Your task to perform on an android device: Open accessibility settings Image 0: 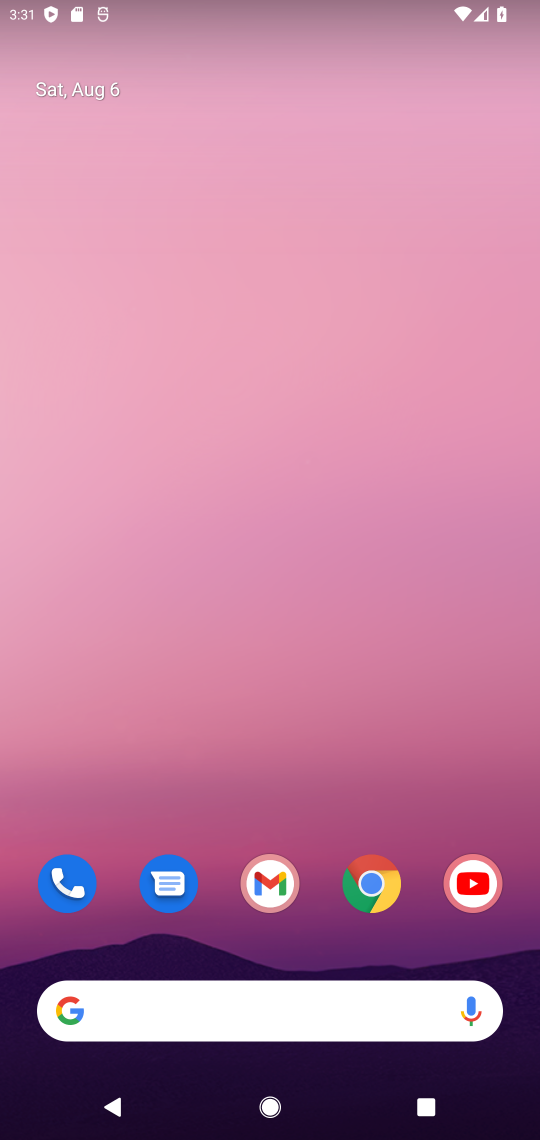
Step 0: drag from (388, 732) to (400, 170)
Your task to perform on an android device: Open accessibility settings Image 1: 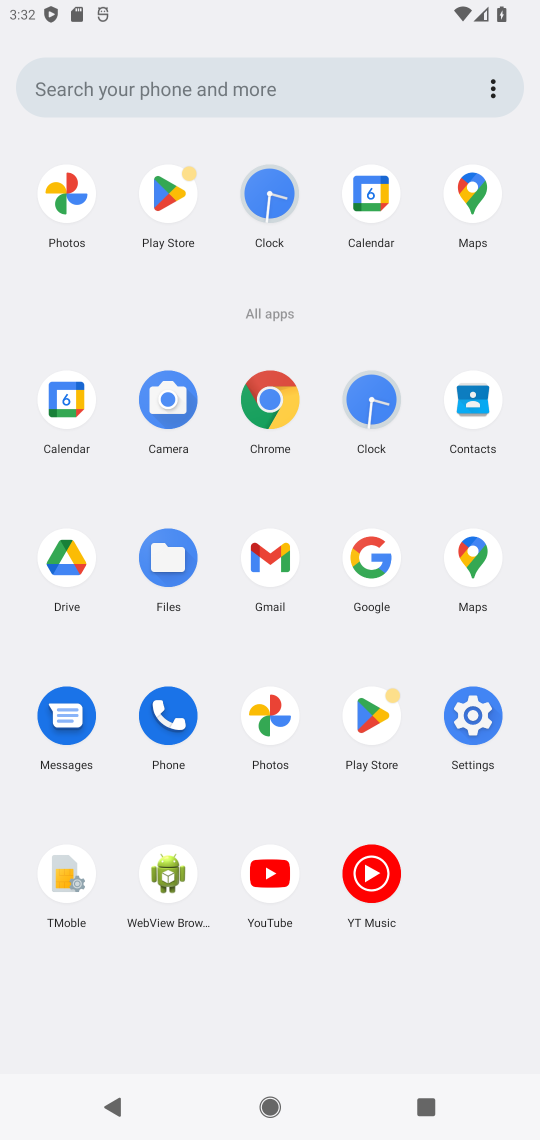
Step 1: click (482, 727)
Your task to perform on an android device: Open accessibility settings Image 2: 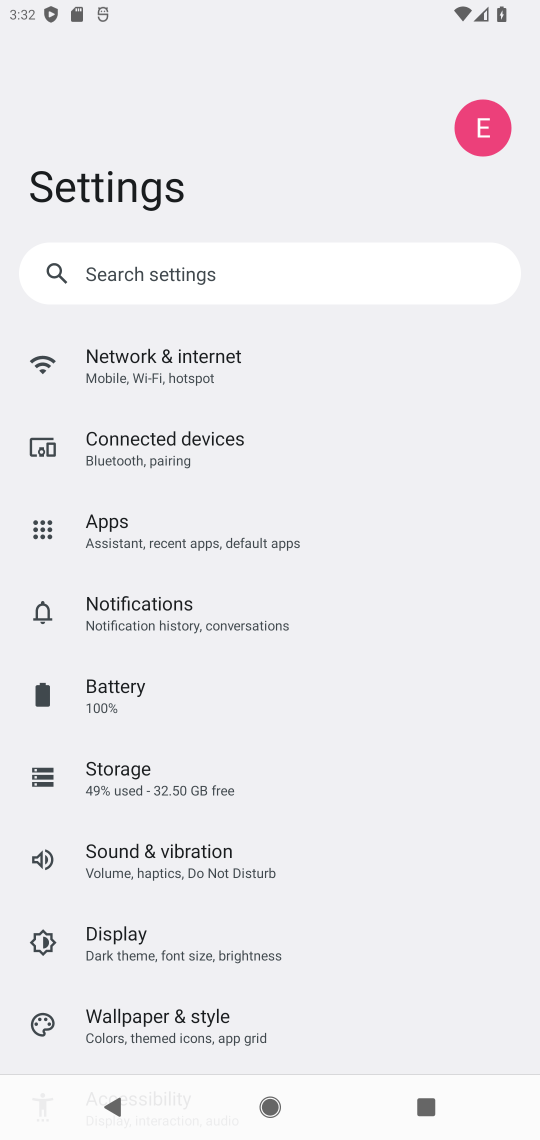
Step 2: drag from (202, 768) to (316, 120)
Your task to perform on an android device: Open accessibility settings Image 3: 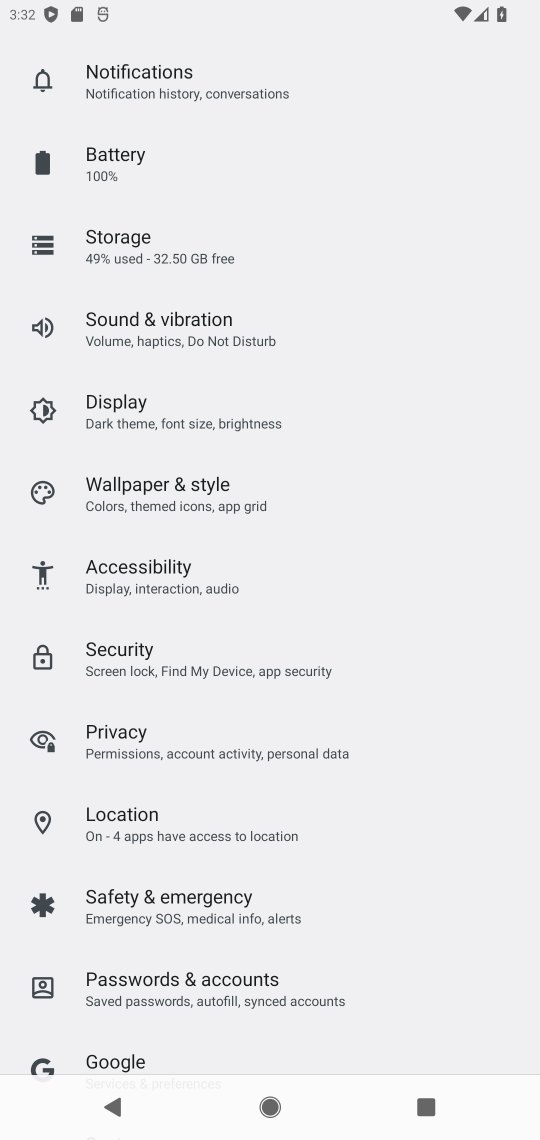
Step 3: click (211, 591)
Your task to perform on an android device: Open accessibility settings Image 4: 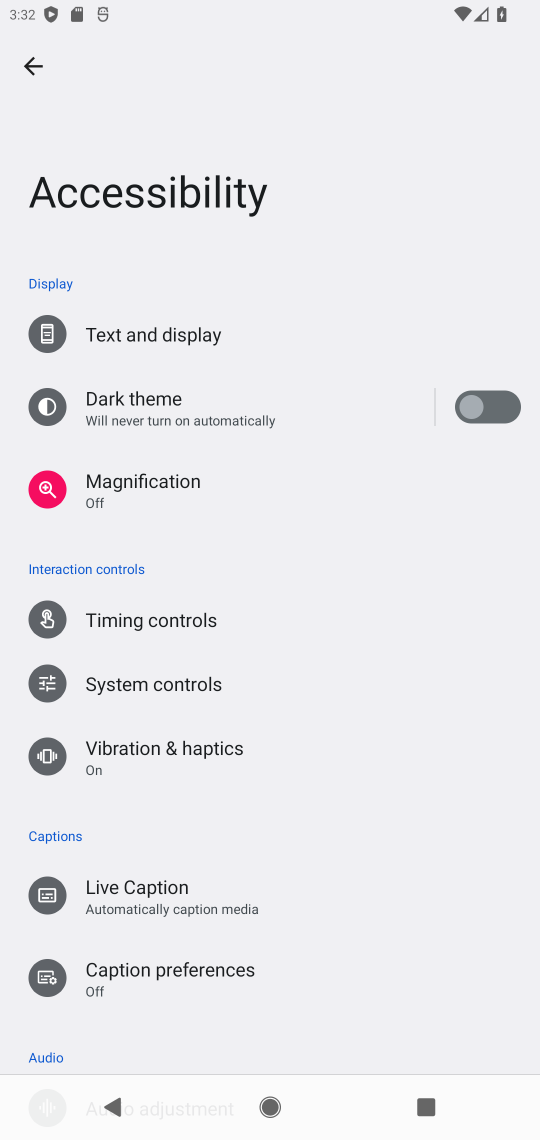
Step 4: task complete